Your task to perform on an android device: change timer sound Image 0: 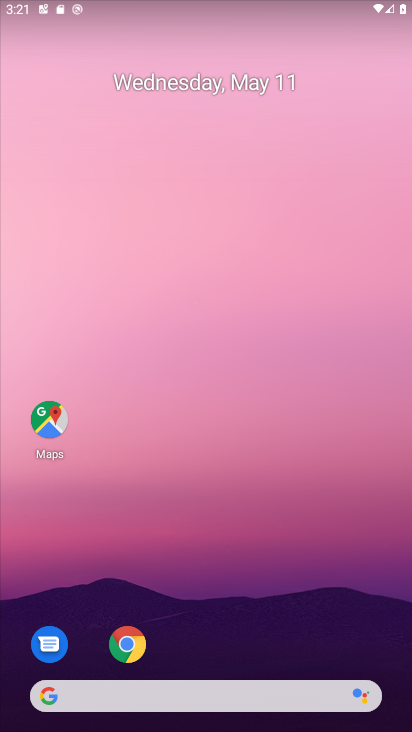
Step 0: drag from (194, 673) to (152, 8)
Your task to perform on an android device: change timer sound Image 1: 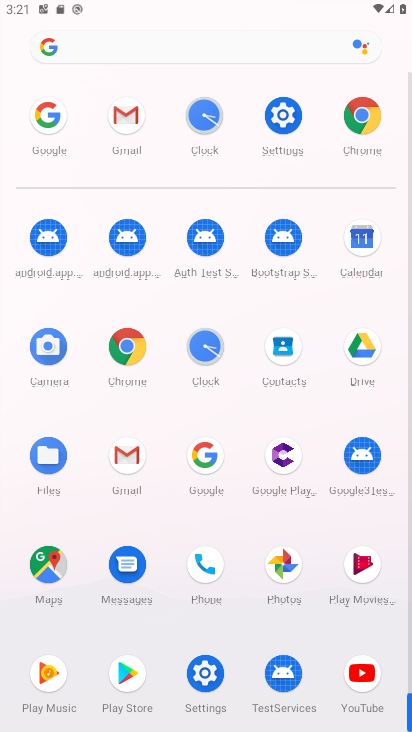
Step 1: click (209, 351)
Your task to perform on an android device: change timer sound Image 2: 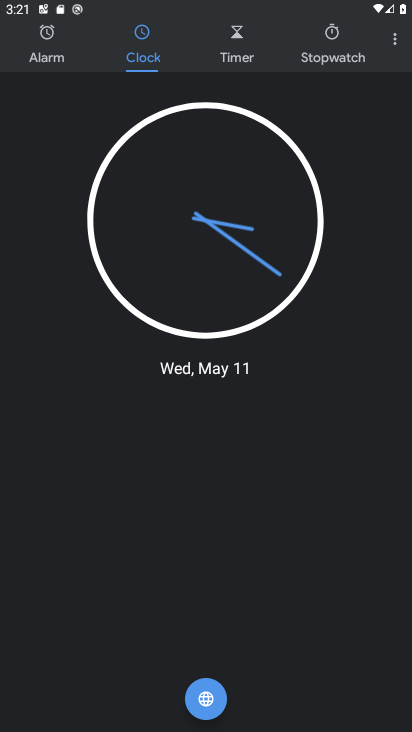
Step 2: click (396, 32)
Your task to perform on an android device: change timer sound Image 3: 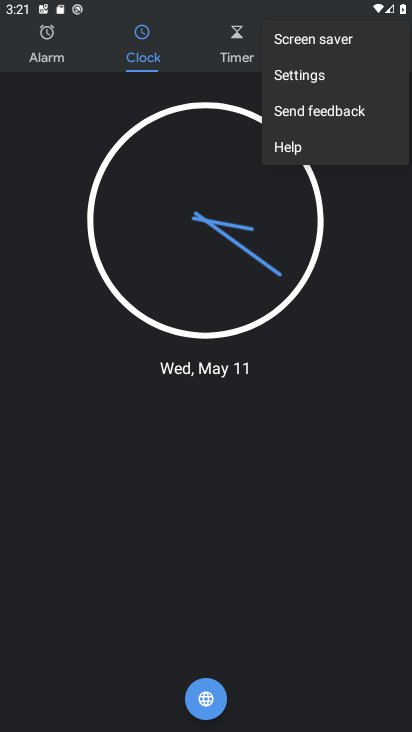
Step 3: click (287, 71)
Your task to perform on an android device: change timer sound Image 4: 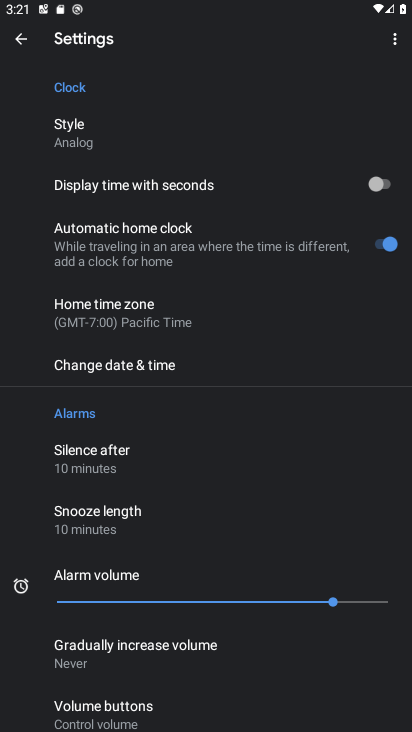
Step 4: click (115, 373)
Your task to perform on an android device: change timer sound Image 5: 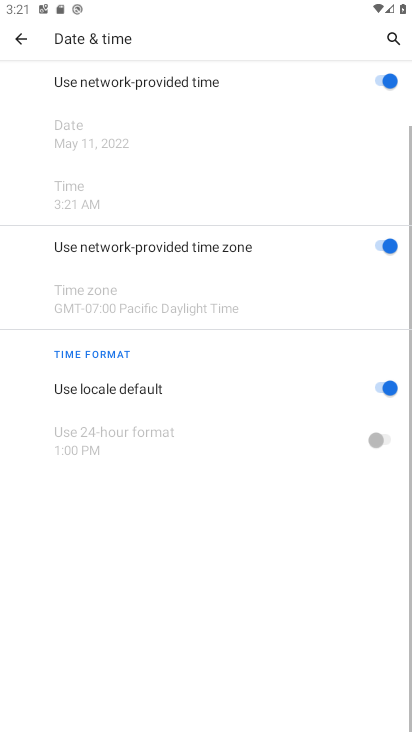
Step 5: click (7, 22)
Your task to perform on an android device: change timer sound Image 6: 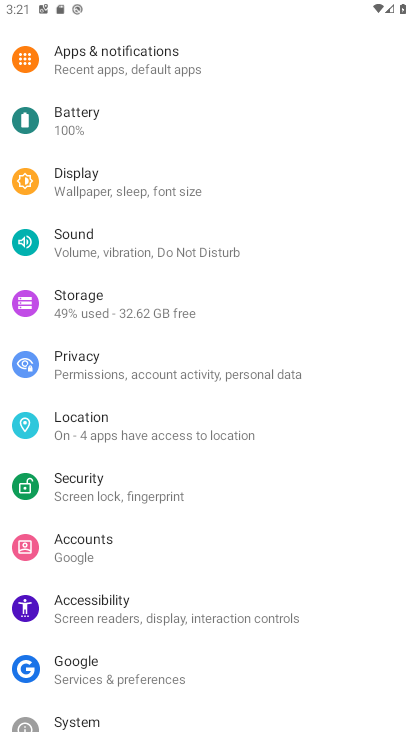
Step 6: drag from (123, 632) to (106, 233)
Your task to perform on an android device: change timer sound Image 7: 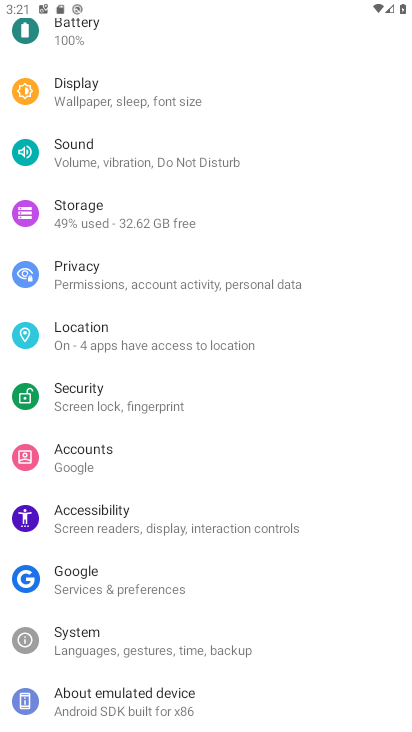
Step 7: press back button
Your task to perform on an android device: change timer sound Image 8: 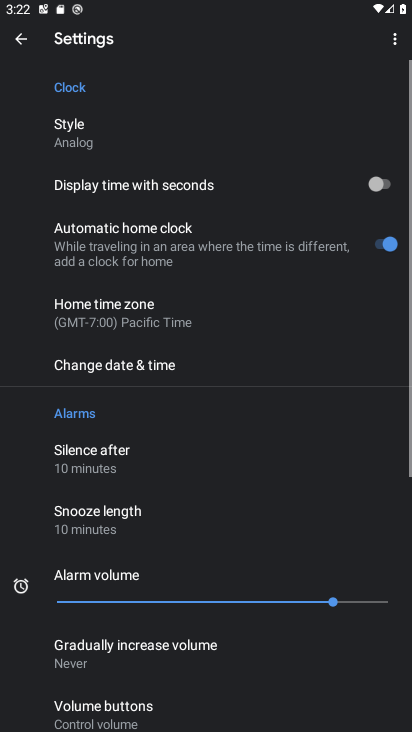
Step 8: drag from (242, 577) to (200, 146)
Your task to perform on an android device: change timer sound Image 9: 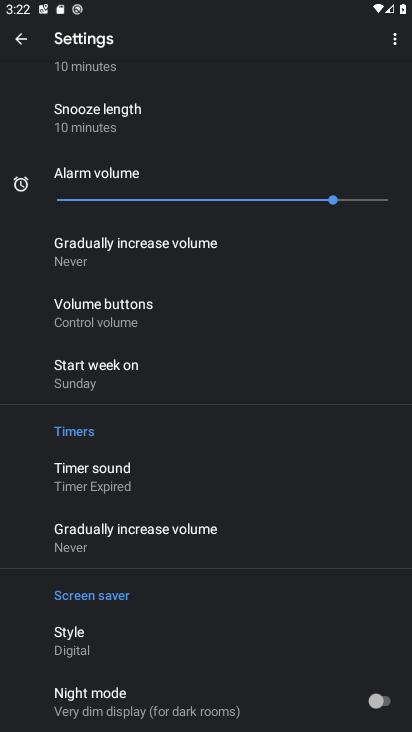
Step 9: click (123, 474)
Your task to perform on an android device: change timer sound Image 10: 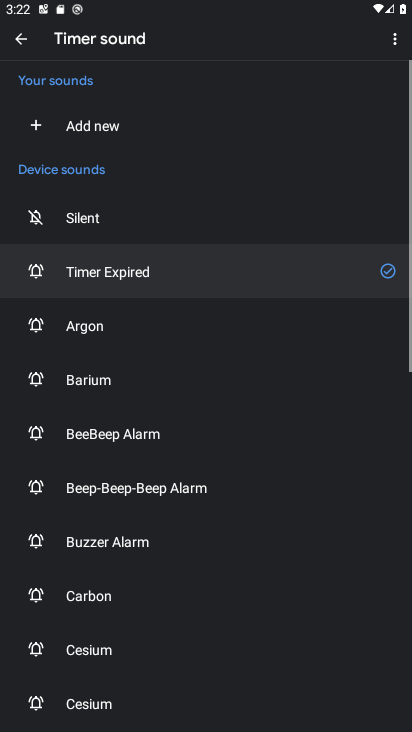
Step 10: click (126, 326)
Your task to perform on an android device: change timer sound Image 11: 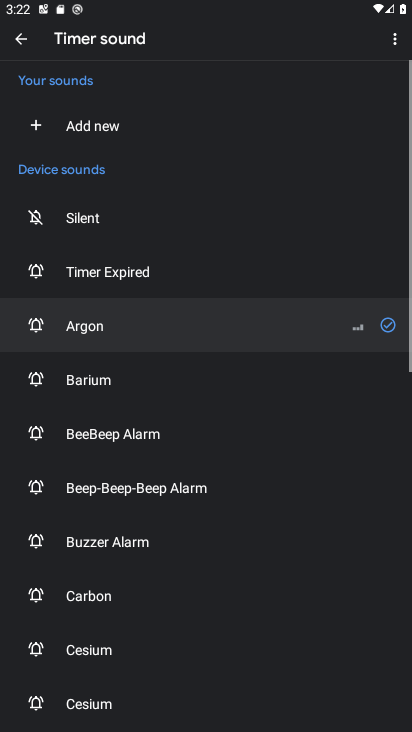
Step 11: task complete